Your task to perform on an android device: Open Google Chrome Image 0: 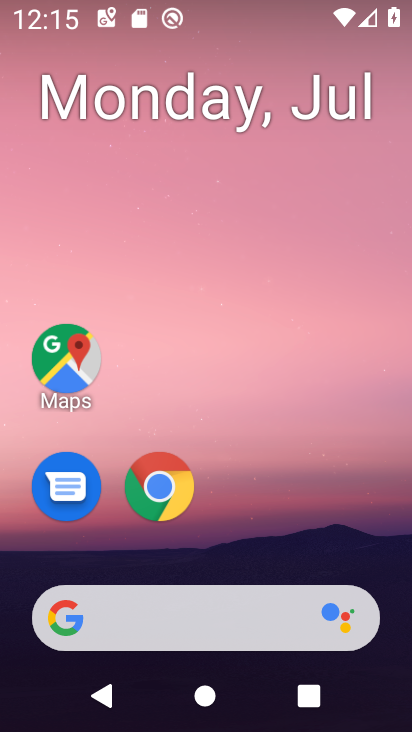
Step 0: press home button
Your task to perform on an android device: Open Google Chrome Image 1: 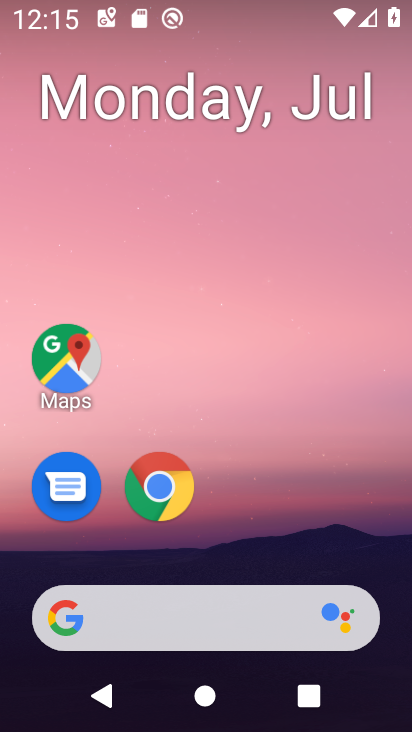
Step 1: drag from (351, 543) to (333, 59)
Your task to perform on an android device: Open Google Chrome Image 2: 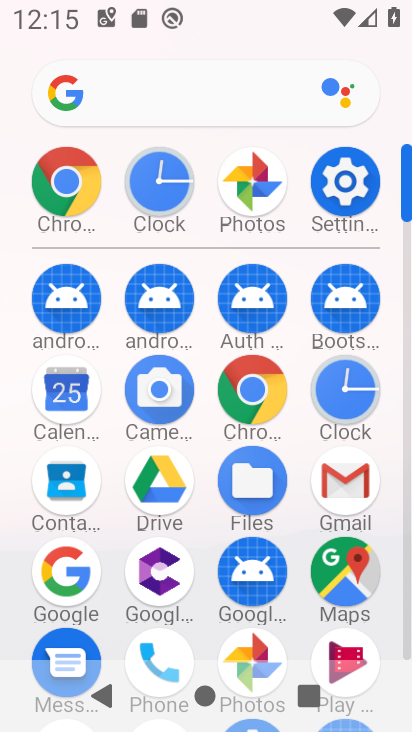
Step 2: click (241, 403)
Your task to perform on an android device: Open Google Chrome Image 3: 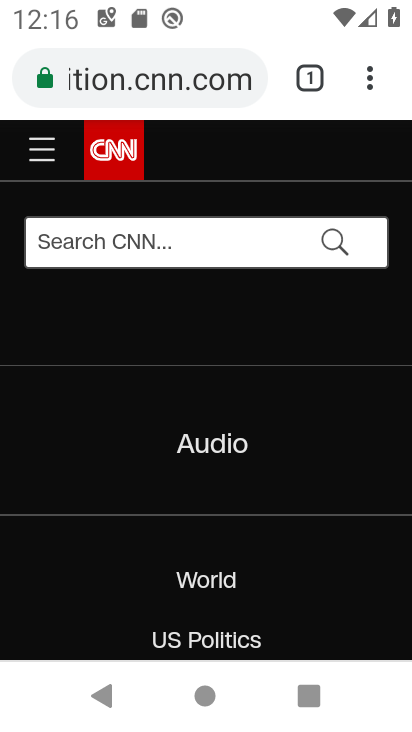
Step 3: task complete